Your task to perform on an android device: turn off wifi Image 0: 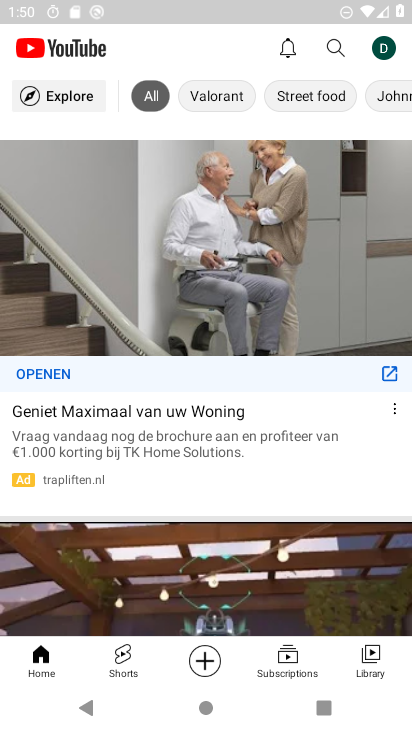
Step 0: press home button
Your task to perform on an android device: turn off wifi Image 1: 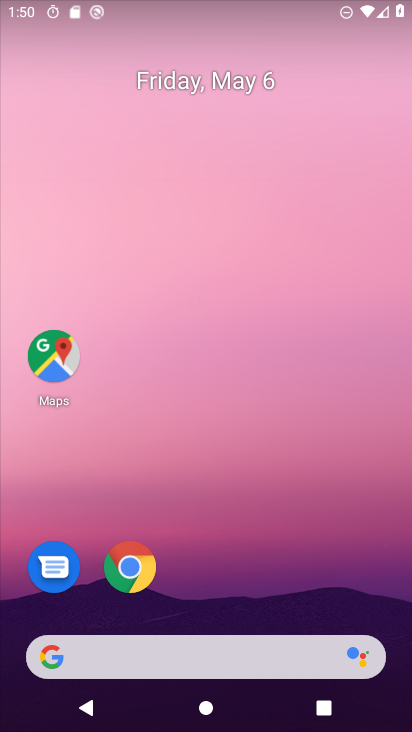
Step 1: drag from (271, 677) to (281, 79)
Your task to perform on an android device: turn off wifi Image 2: 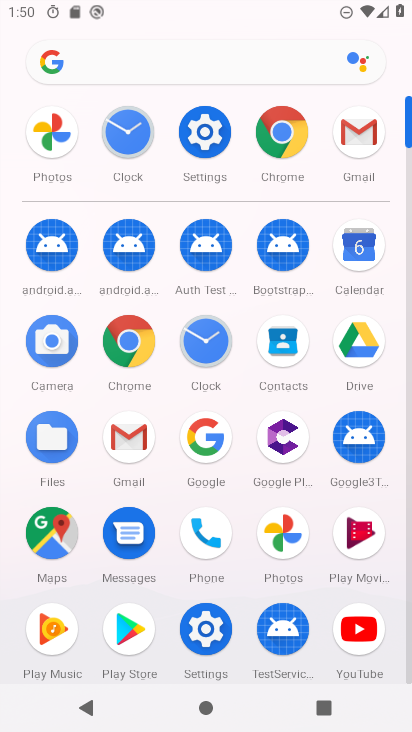
Step 2: click (206, 117)
Your task to perform on an android device: turn off wifi Image 3: 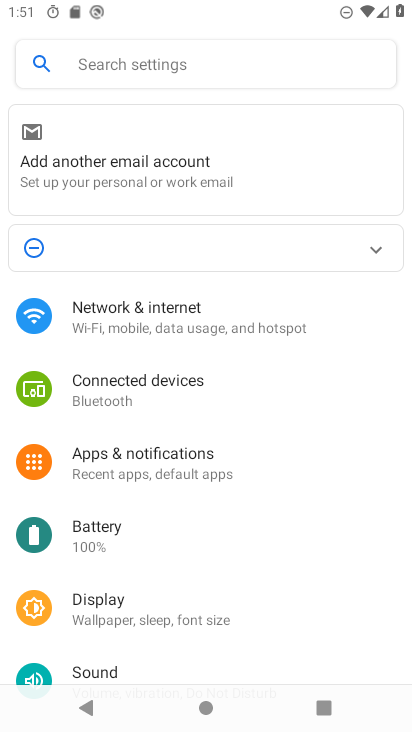
Step 3: click (125, 321)
Your task to perform on an android device: turn off wifi Image 4: 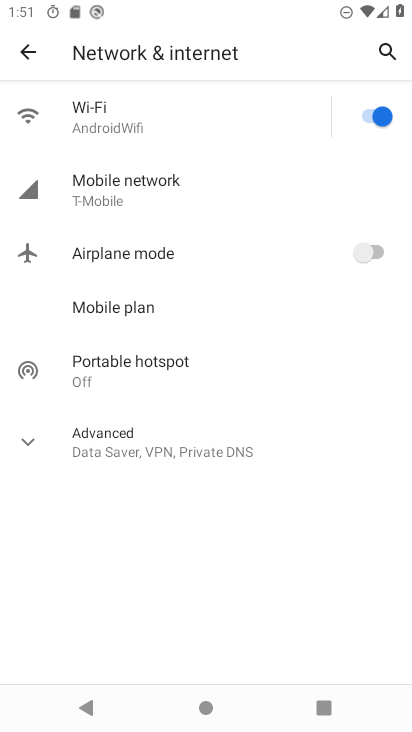
Step 4: click (137, 115)
Your task to perform on an android device: turn off wifi Image 5: 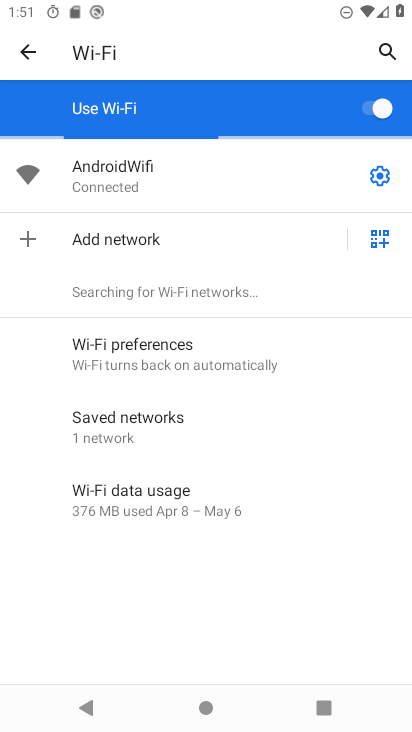
Step 5: click (367, 103)
Your task to perform on an android device: turn off wifi Image 6: 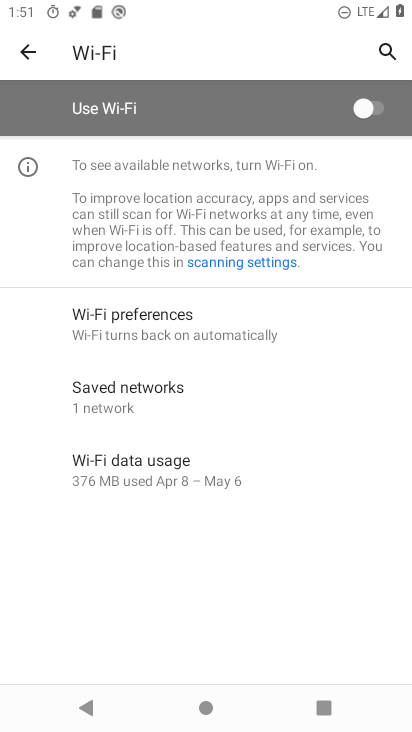
Step 6: task complete